Your task to perform on an android device: Go to CNN.com Image 0: 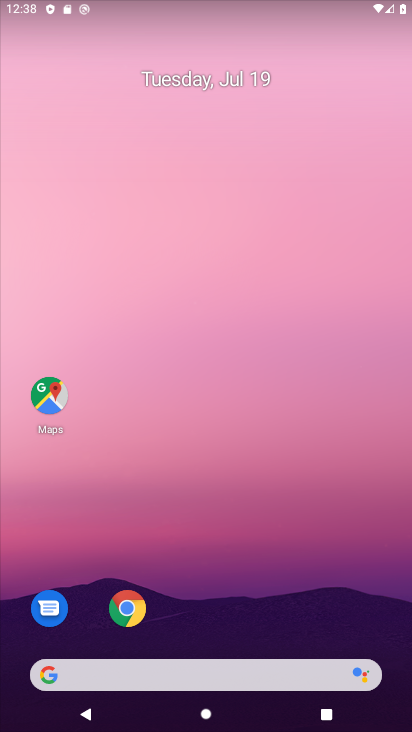
Step 0: drag from (263, 619) to (216, 88)
Your task to perform on an android device: Go to CNN.com Image 1: 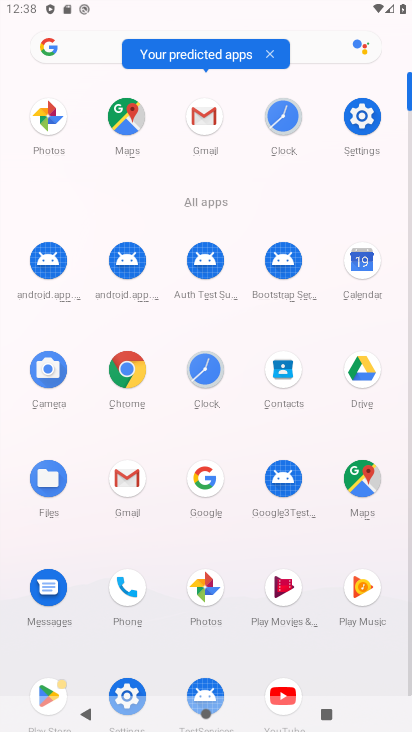
Step 1: click (131, 359)
Your task to perform on an android device: Go to CNN.com Image 2: 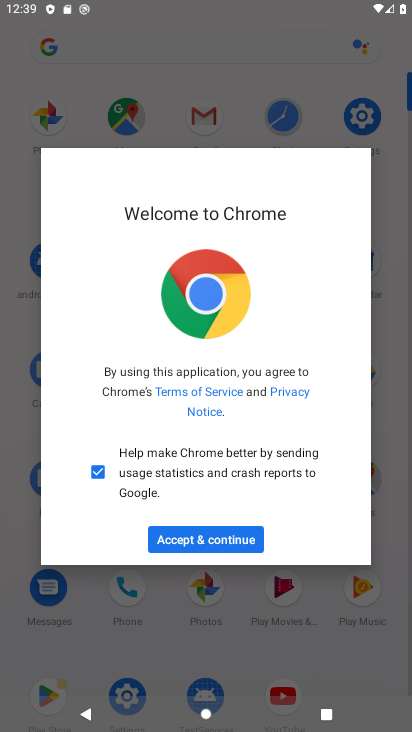
Step 2: click (235, 546)
Your task to perform on an android device: Go to CNN.com Image 3: 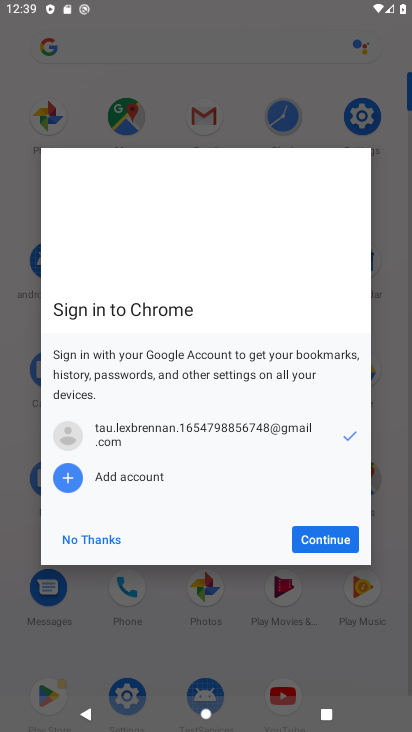
Step 3: click (321, 535)
Your task to perform on an android device: Go to CNN.com Image 4: 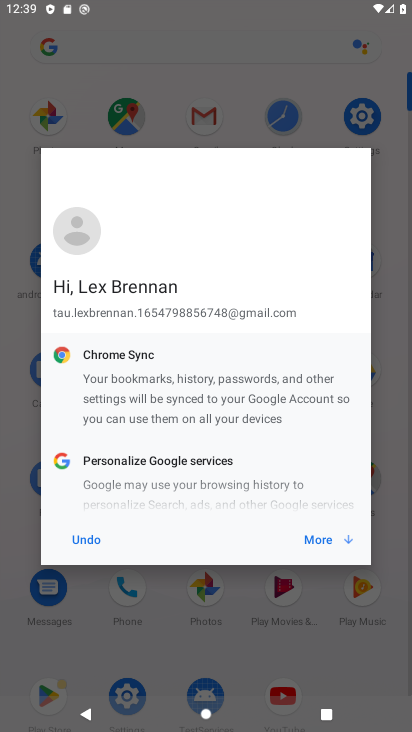
Step 4: click (338, 537)
Your task to perform on an android device: Go to CNN.com Image 5: 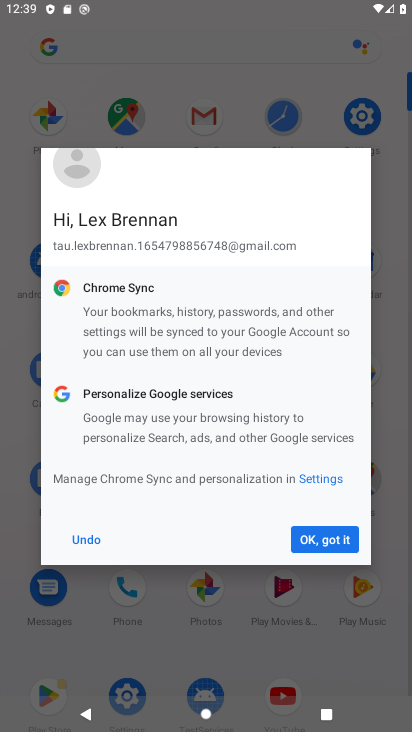
Step 5: click (338, 537)
Your task to perform on an android device: Go to CNN.com Image 6: 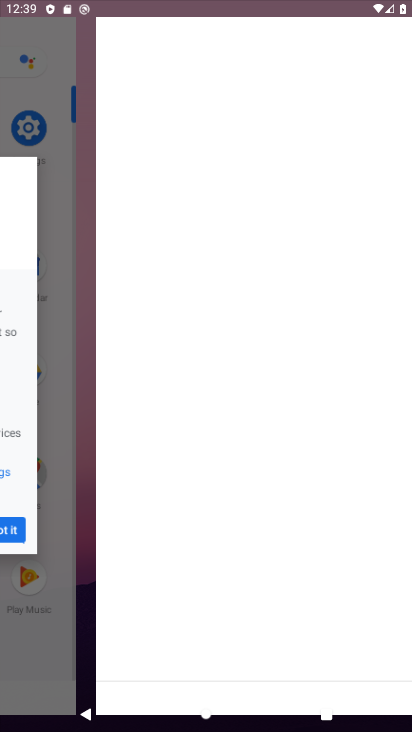
Step 6: click (328, 537)
Your task to perform on an android device: Go to CNN.com Image 7: 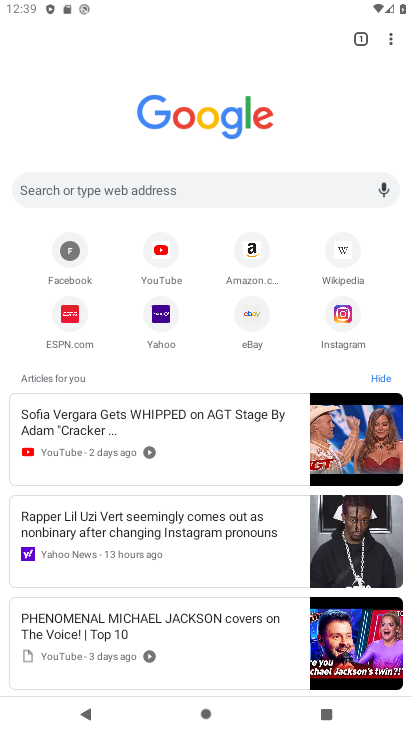
Step 7: click (166, 181)
Your task to perform on an android device: Go to CNN.com Image 8: 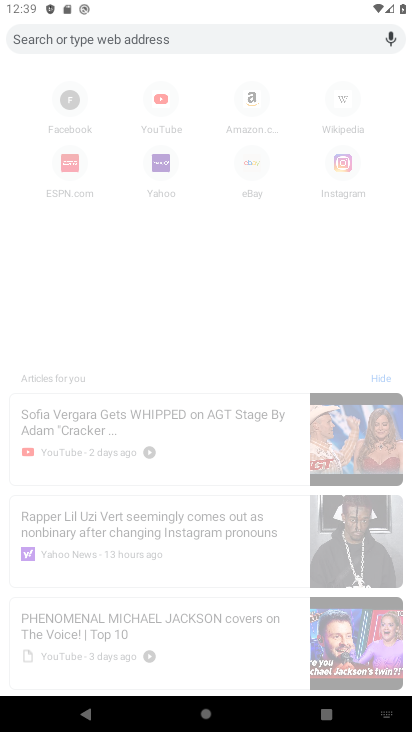
Step 8: type "cnn.com"
Your task to perform on an android device: Go to CNN.com Image 9: 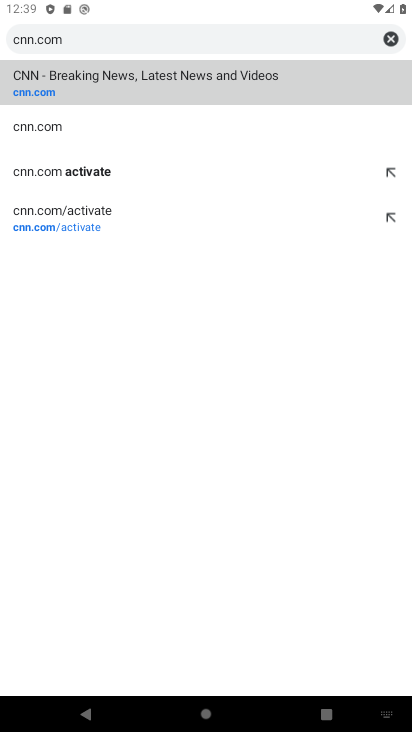
Step 9: click (70, 70)
Your task to perform on an android device: Go to CNN.com Image 10: 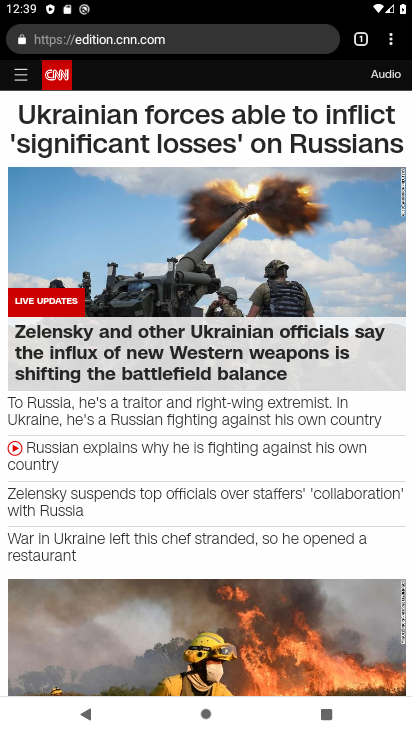
Step 10: task complete